Your task to perform on an android device: Open notification settings Image 0: 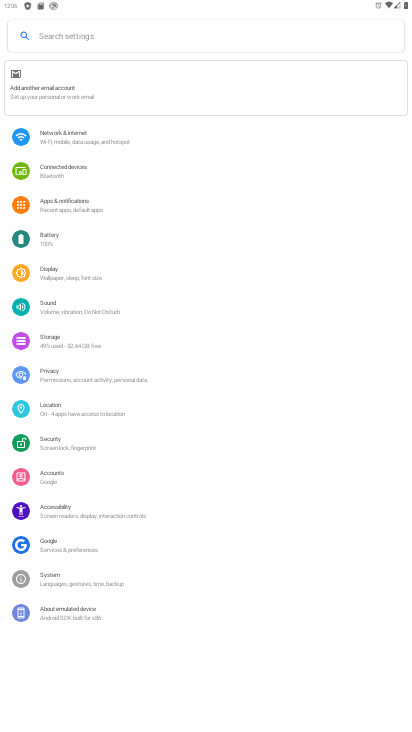
Step 0: press home button
Your task to perform on an android device: Open notification settings Image 1: 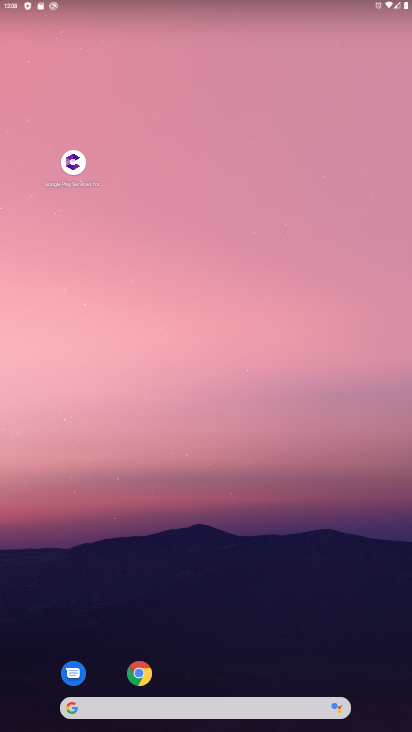
Step 1: drag from (229, 689) to (226, 196)
Your task to perform on an android device: Open notification settings Image 2: 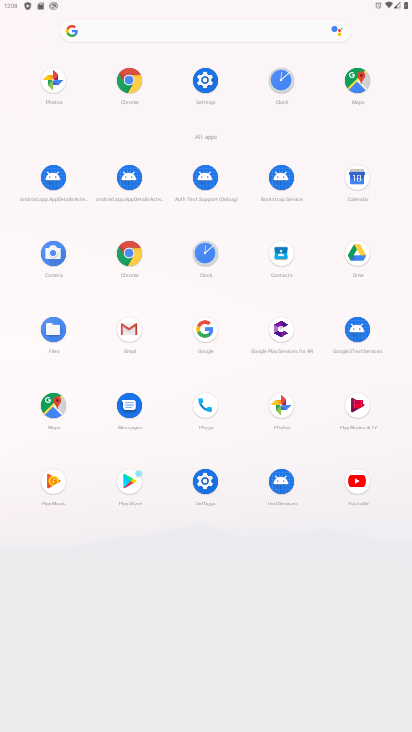
Step 2: click (208, 492)
Your task to perform on an android device: Open notification settings Image 3: 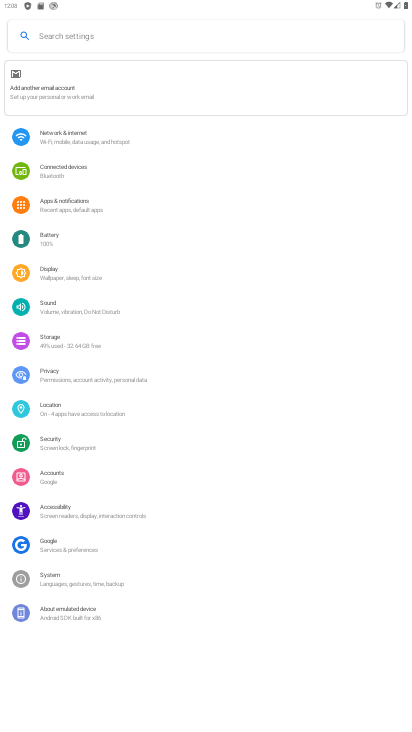
Step 3: click (125, 204)
Your task to perform on an android device: Open notification settings Image 4: 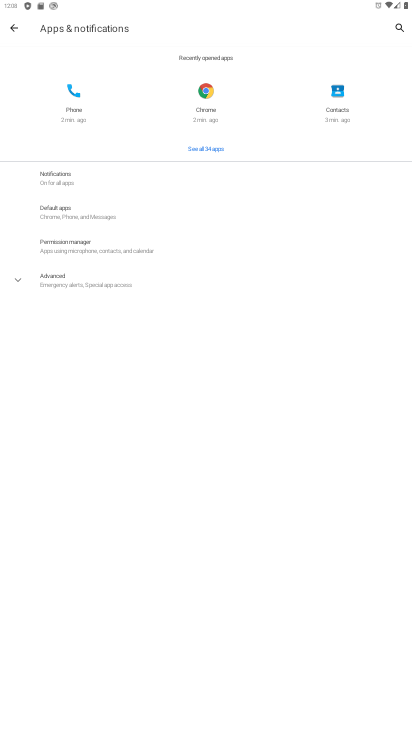
Step 4: task complete